Your task to perform on an android device: Open Amazon Image 0: 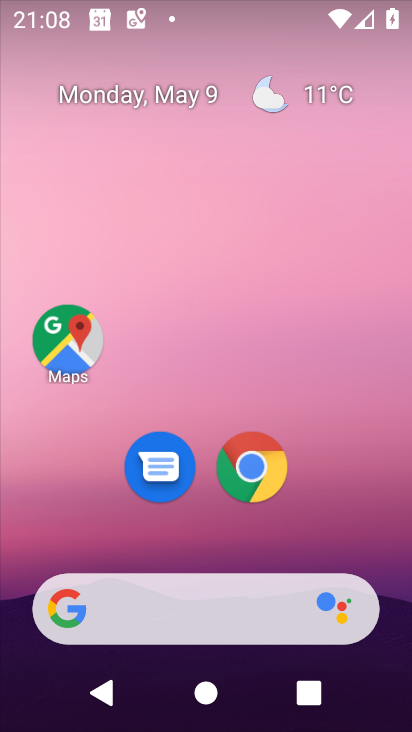
Step 0: drag from (341, 387) to (330, 176)
Your task to perform on an android device: Open Amazon Image 1: 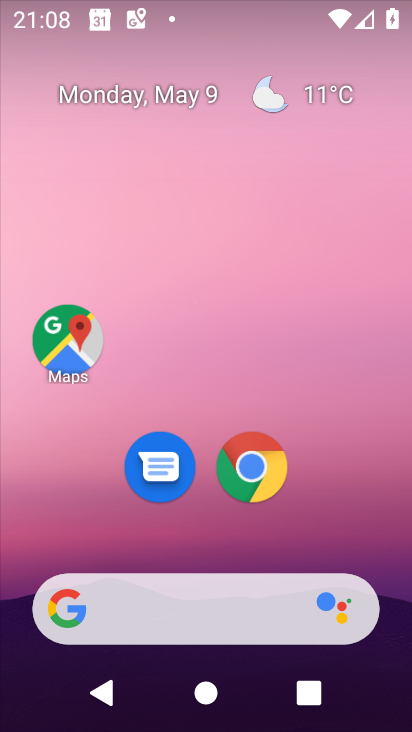
Step 1: drag from (304, 514) to (345, 297)
Your task to perform on an android device: Open Amazon Image 2: 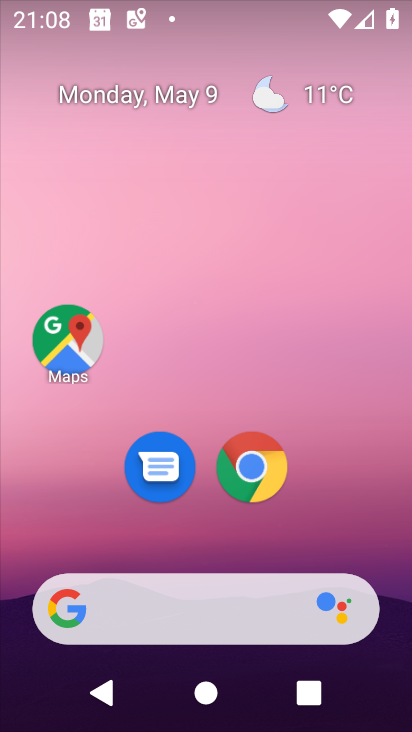
Step 2: drag from (304, 535) to (329, 244)
Your task to perform on an android device: Open Amazon Image 3: 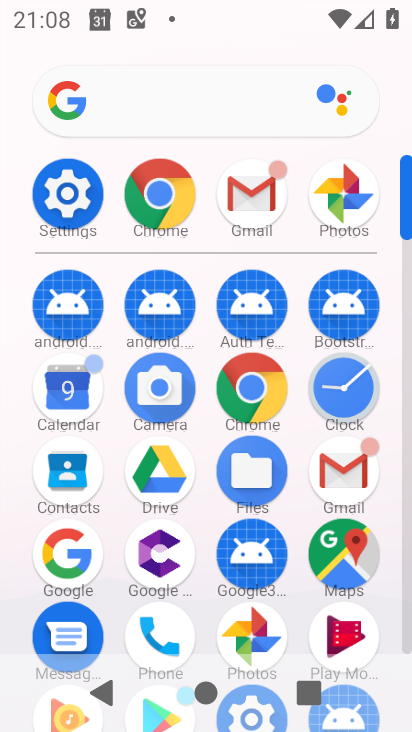
Step 3: click (141, 159)
Your task to perform on an android device: Open Amazon Image 4: 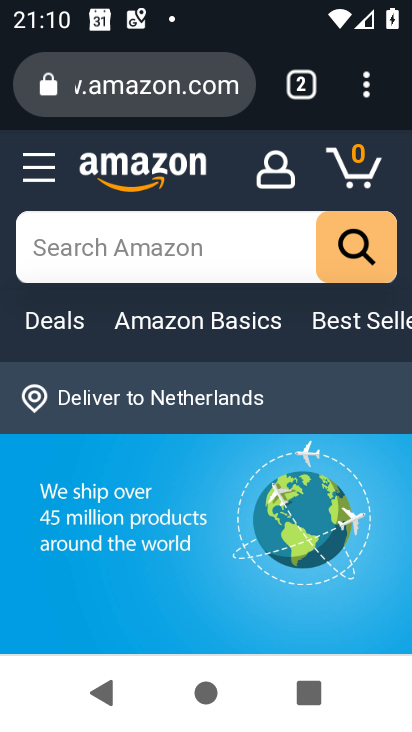
Step 4: task complete